Your task to perform on an android device: check data usage Image 0: 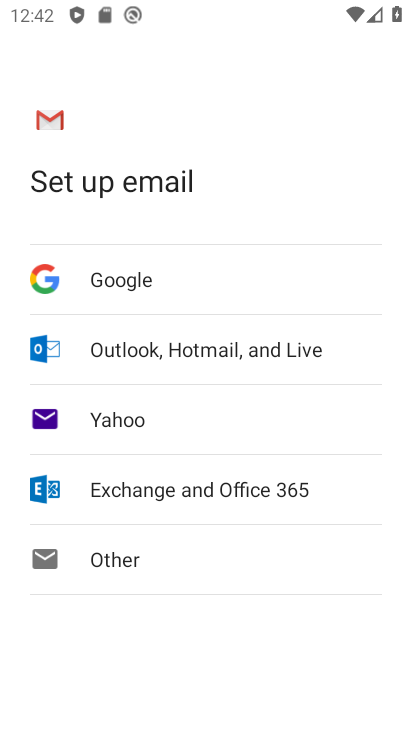
Step 0: press home button
Your task to perform on an android device: check data usage Image 1: 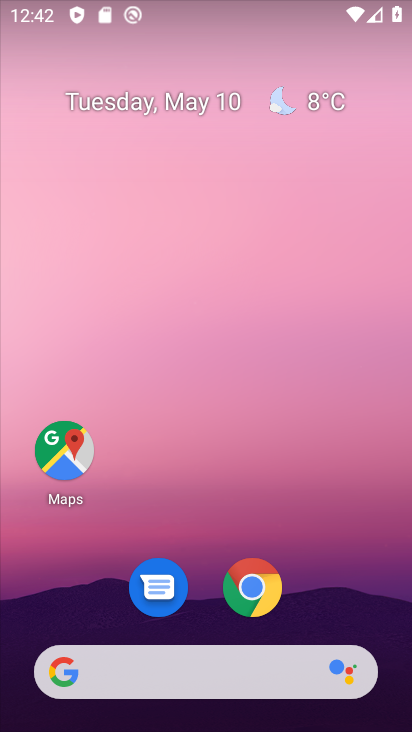
Step 1: drag from (348, 7) to (343, 449)
Your task to perform on an android device: check data usage Image 2: 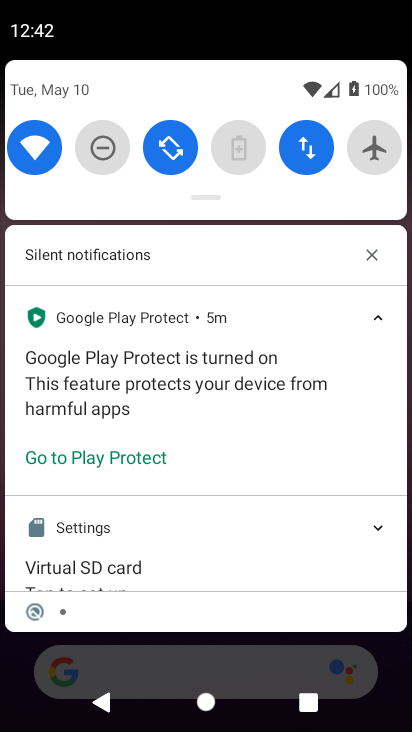
Step 2: click (313, 150)
Your task to perform on an android device: check data usage Image 3: 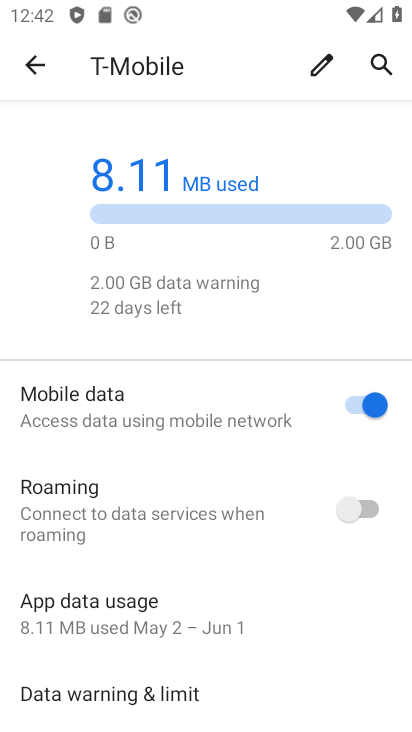
Step 3: task complete